Your task to perform on an android device: turn off airplane mode Image 0: 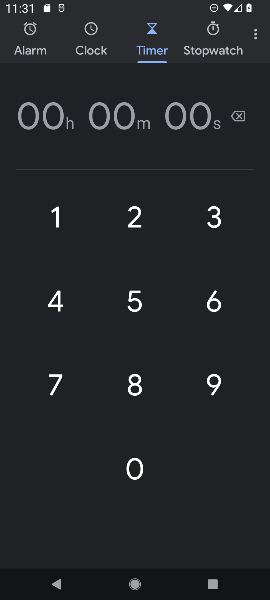
Step 0: press back button
Your task to perform on an android device: turn off airplane mode Image 1: 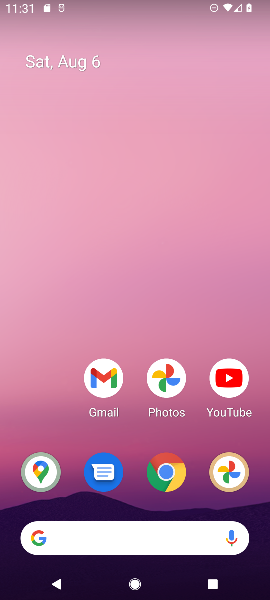
Step 1: drag from (177, 547) to (103, 19)
Your task to perform on an android device: turn off airplane mode Image 2: 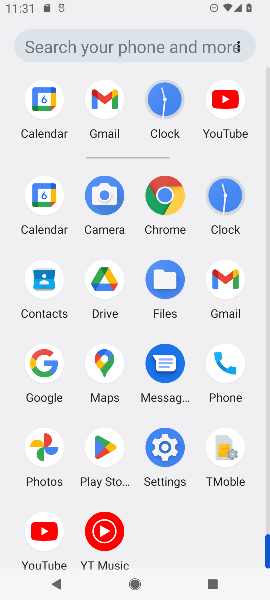
Step 2: drag from (172, 188) to (161, 356)
Your task to perform on an android device: turn off airplane mode Image 3: 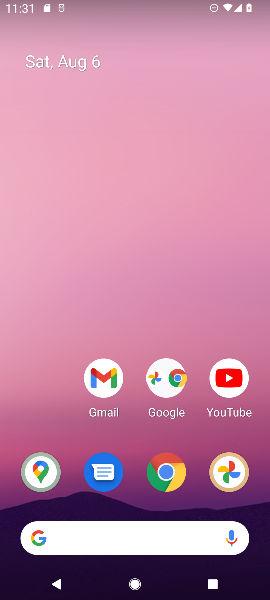
Step 3: click (169, 467)
Your task to perform on an android device: turn off airplane mode Image 4: 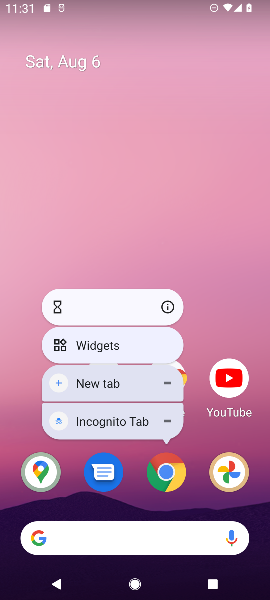
Step 4: click (205, 259)
Your task to perform on an android device: turn off airplane mode Image 5: 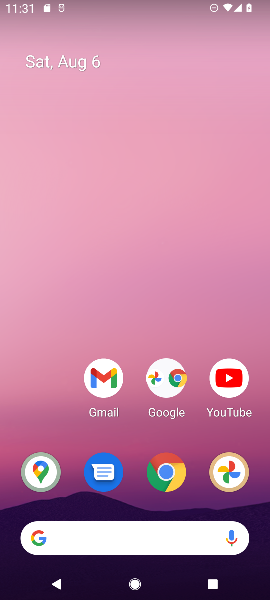
Step 5: drag from (218, 526) to (98, 8)
Your task to perform on an android device: turn off airplane mode Image 6: 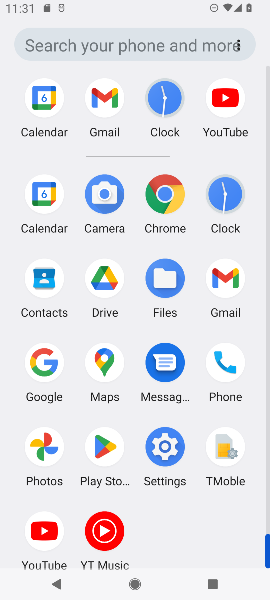
Step 6: drag from (213, 440) to (158, 75)
Your task to perform on an android device: turn off airplane mode Image 7: 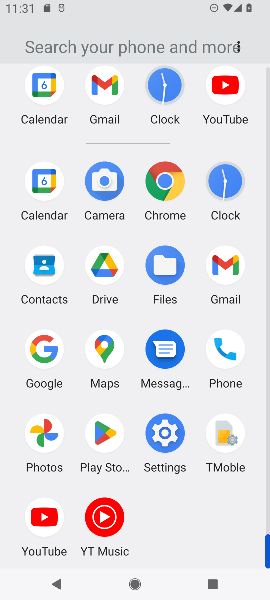
Step 7: click (168, 447)
Your task to perform on an android device: turn off airplane mode Image 8: 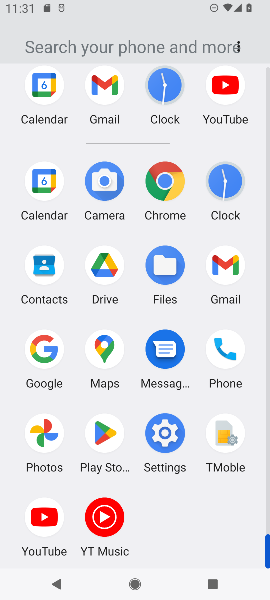
Step 8: click (165, 439)
Your task to perform on an android device: turn off airplane mode Image 9: 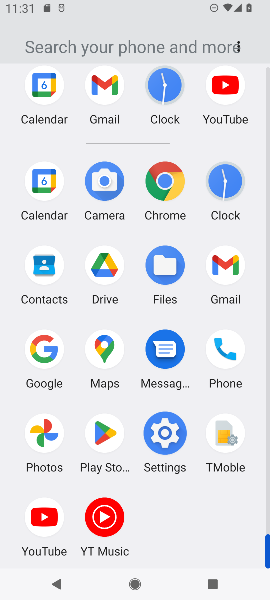
Step 9: click (165, 439)
Your task to perform on an android device: turn off airplane mode Image 10: 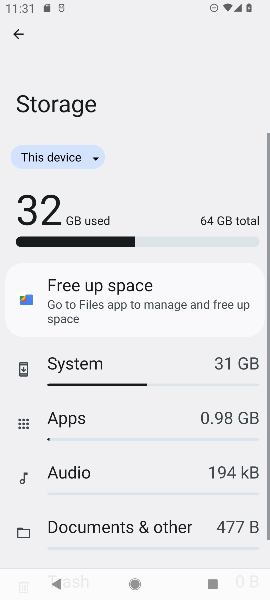
Step 10: click (4, 35)
Your task to perform on an android device: turn off airplane mode Image 11: 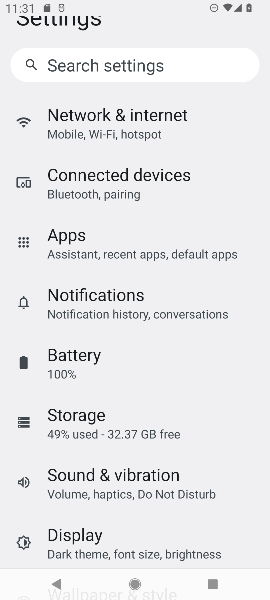
Step 11: click (124, 124)
Your task to perform on an android device: turn off airplane mode Image 12: 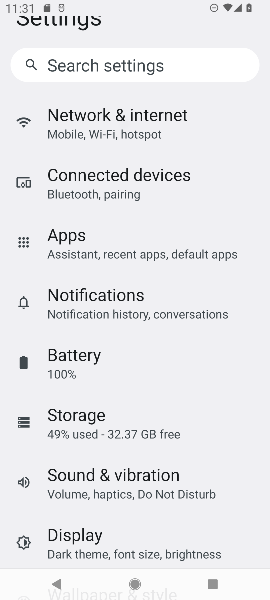
Step 12: click (124, 124)
Your task to perform on an android device: turn off airplane mode Image 13: 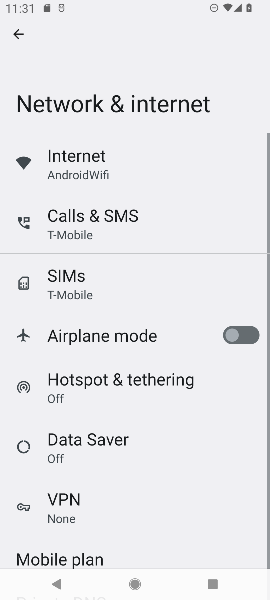
Step 13: click (231, 334)
Your task to perform on an android device: turn off airplane mode Image 14: 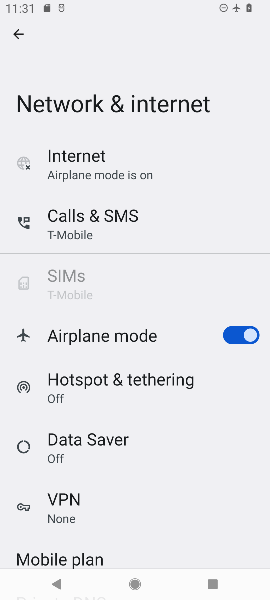
Step 14: task complete